Your task to perform on an android device: turn off notifications settings in the gmail app Image 0: 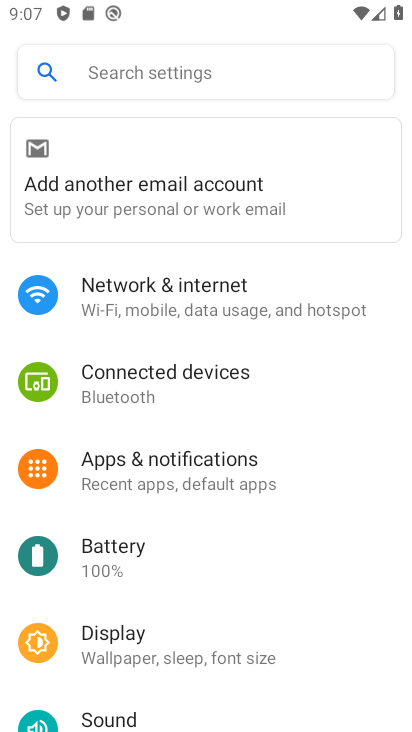
Step 0: press home button
Your task to perform on an android device: turn off notifications settings in the gmail app Image 1: 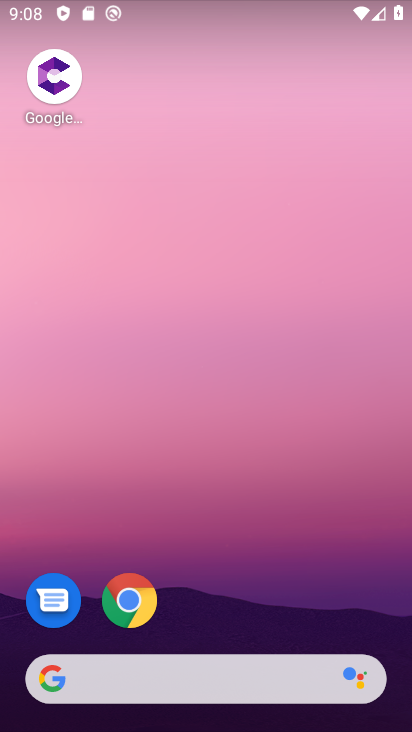
Step 1: drag from (214, 624) to (183, 283)
Your task to perform on an android device: turn off notifications settings in the gmail app Image 2: 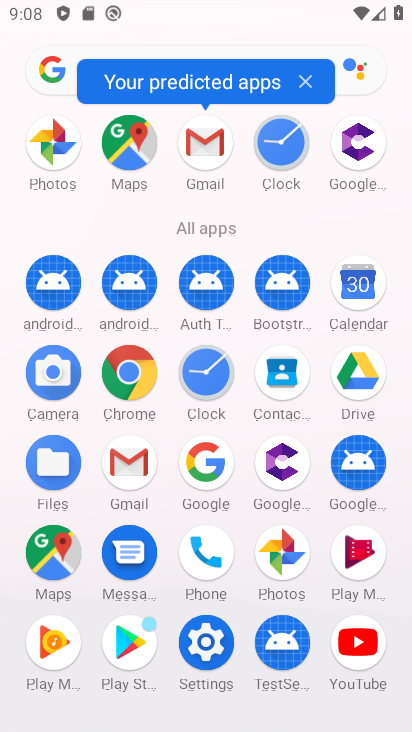
Step 2: click (210, 158)
Your task to perform on an android device: turn off notifications settings in the gmail app Image 3: 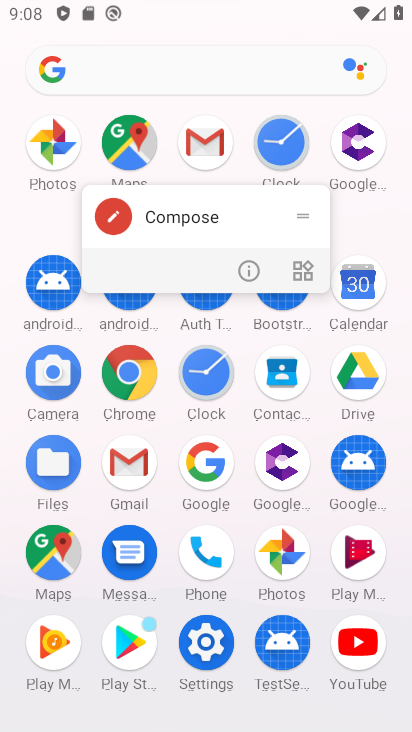
Step 3: click (200, 146)
Your task to perform on an android device: turn off notifications settings in the gmail app Image 4: 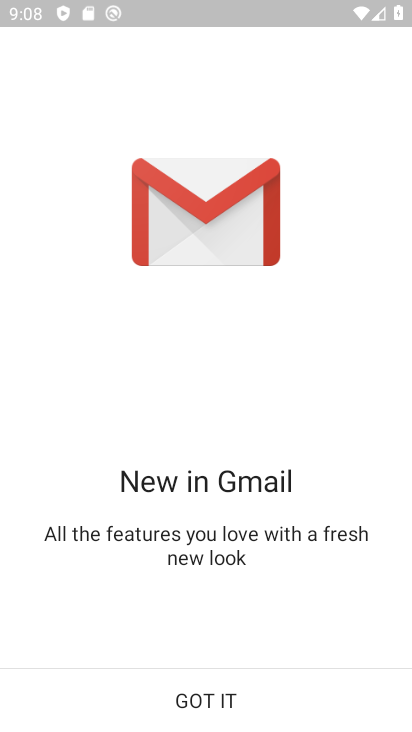
Step 4: click (193, 697)
Your task to perform on an android device: turn off notifications settings in the gmail app Image 5: 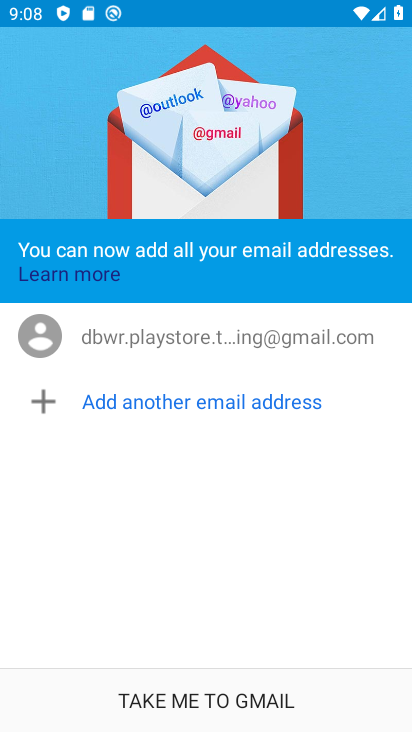
Step 5: click (193, 697)
Your task to perform on an android device: turn off notifications settings in the gmail app Image 6: 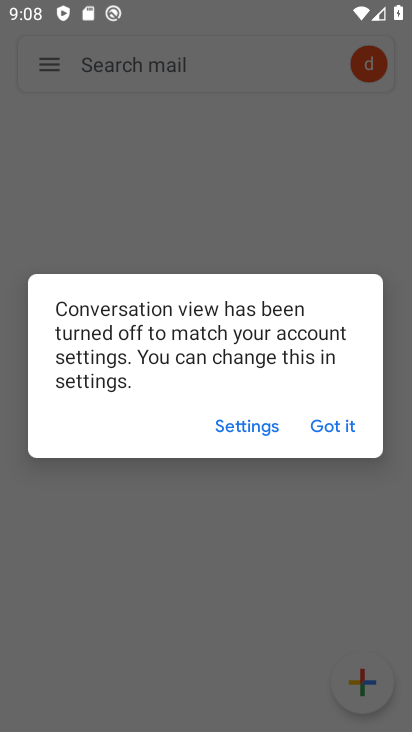
Step 6: click (354, 425)
Your task to perform on an android device: turn off notifications settings in the gmail app Image 7: 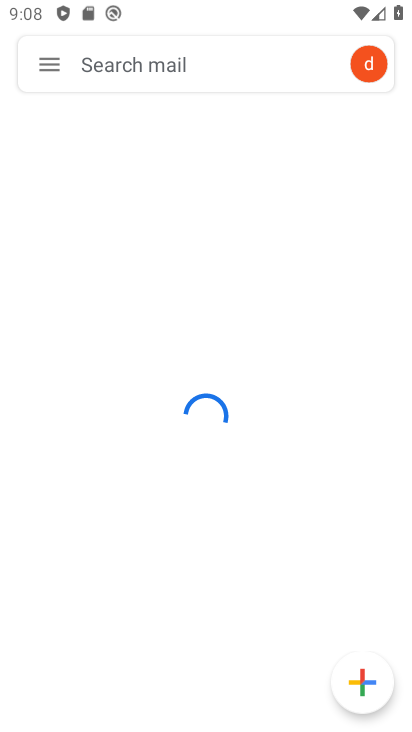
Step 7: click (41, 69)
Your task to perform on an android device: turn off notifications settings in the gmail app Image 8: 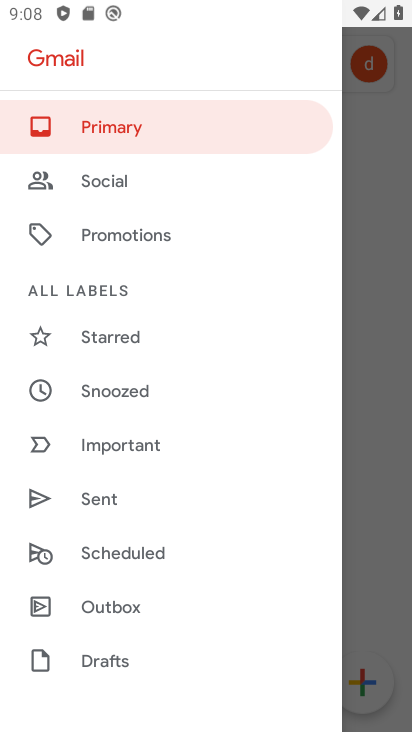
Step 8: drag from (193, 604) to (153, 336)
Your task to perform on an android device: turn off notifications settings in the gmail app Image 9: 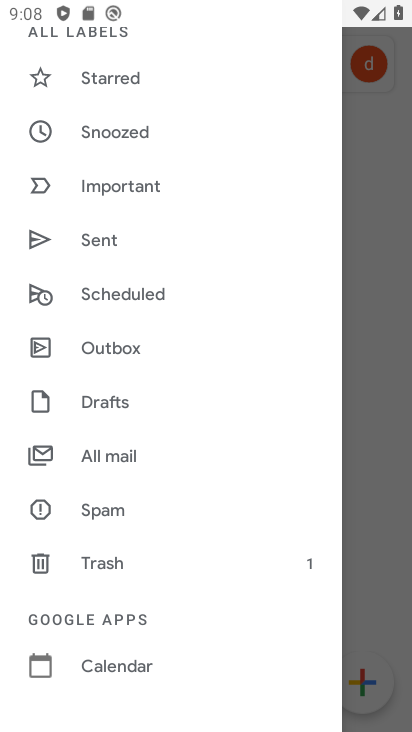
Step 9: drag from (205, 649) to (206, 394)
Your task to perform on an android device: turn off notifications settings in the gmail app Image 10: 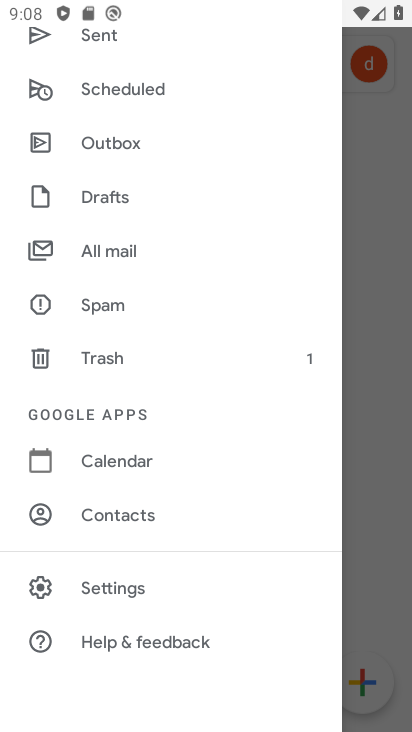
Step 10: click (120, 593)
Your task to perform on an android device: turn off notifications settings in the gmail app Image 11: 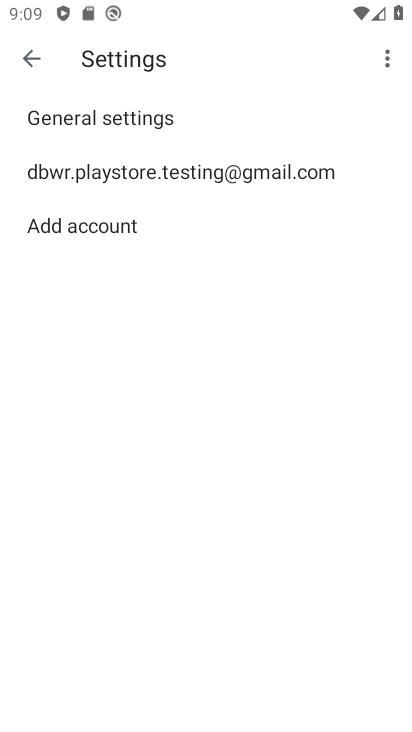
Step 11: click (90, 127)
Your task to perform on an android device: turn off notifications settings in the gmail app Image 12: 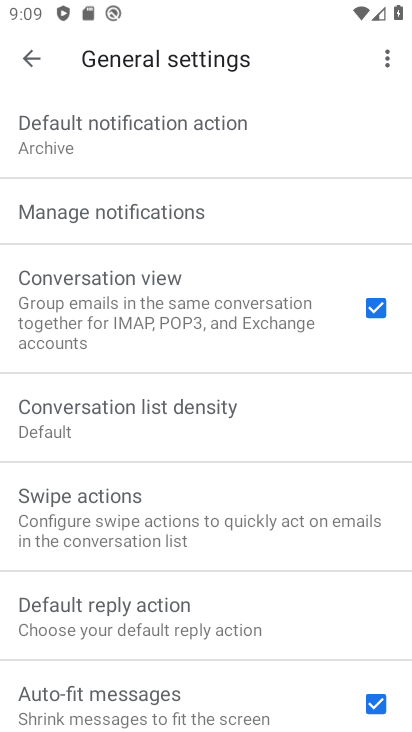
Step 12: click (116, 213)
Your task to perform on an android device: turn off notifications settings in the gmail app Image 13: 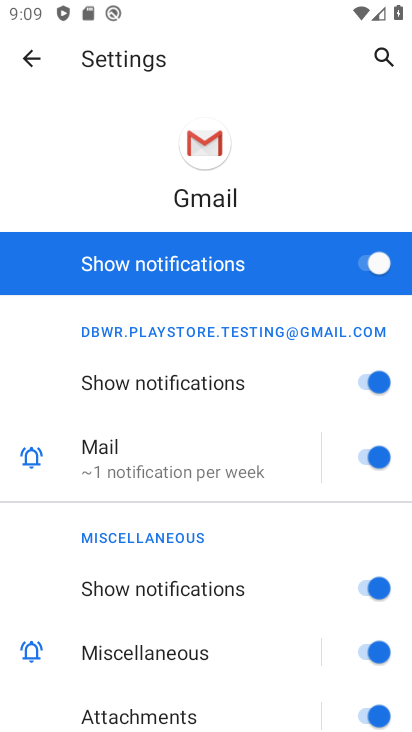
Step 13: click (380, 267)
Your task to perform on an android device: turn off notifications settings in the gmail app Image 14: 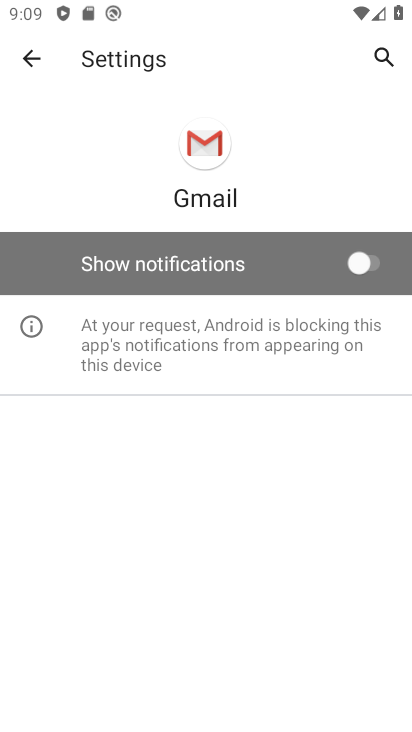
Step 14: task complete